Your task to perform on an android device: Go to Reddit.com Image 0: 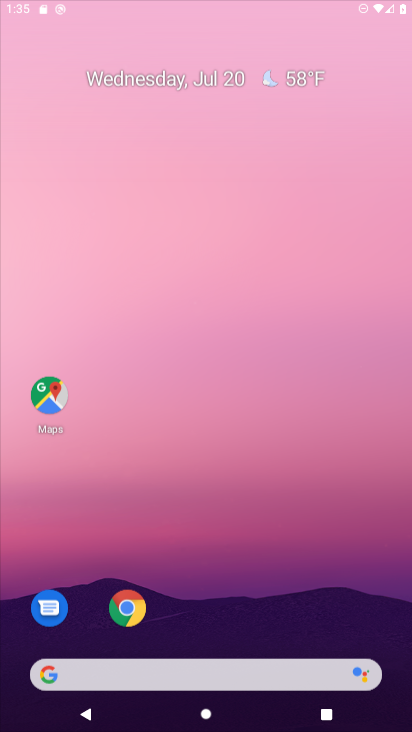
Step 0: click (210, 396)
Your task to perform on an android device: Go to Reddit.com Image 1: 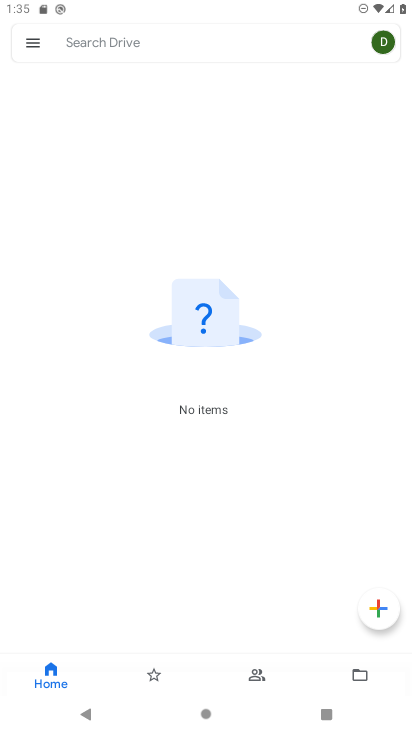
Step 1: press home button
Your task to perform on an android device: Go to Reddit.com Image 2: 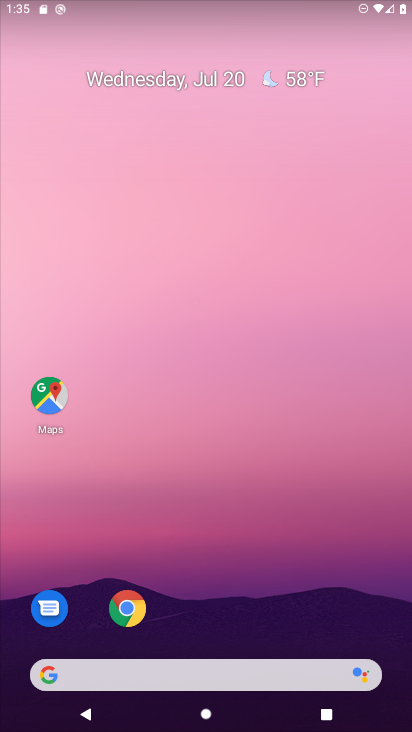
Step 2: drag from (229, 672) to (227, 178)
Your task to perform on an android device: Go to Reddit.com Image 3: 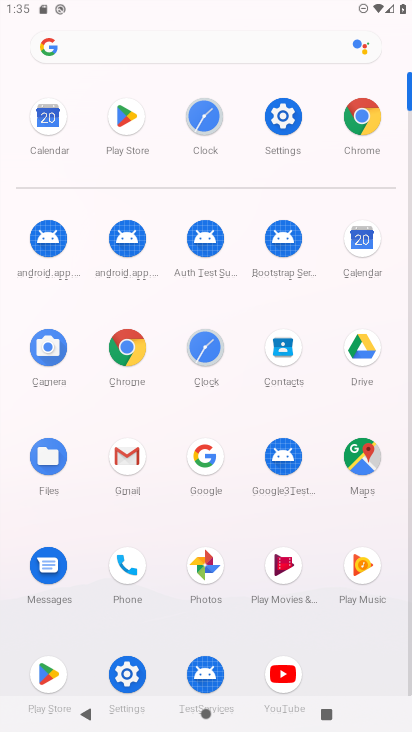
Step 3: click (133, 349)
Your task to perform on an android device: Go to Reddit.com Image 4: 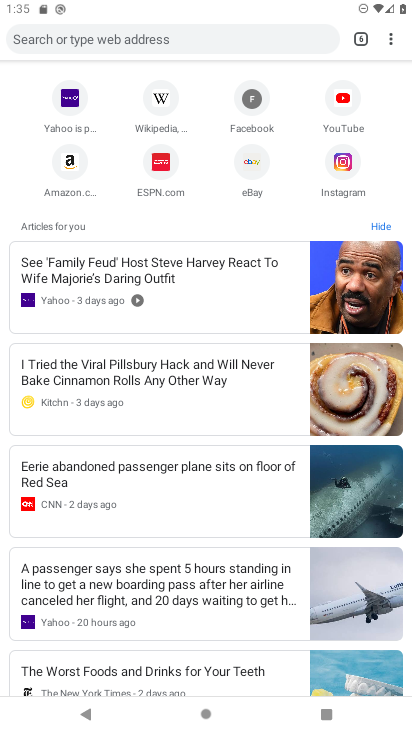
Step 4: click (214, 42)
Your task to perform on an android device: Go to Reddit.com Image 5: 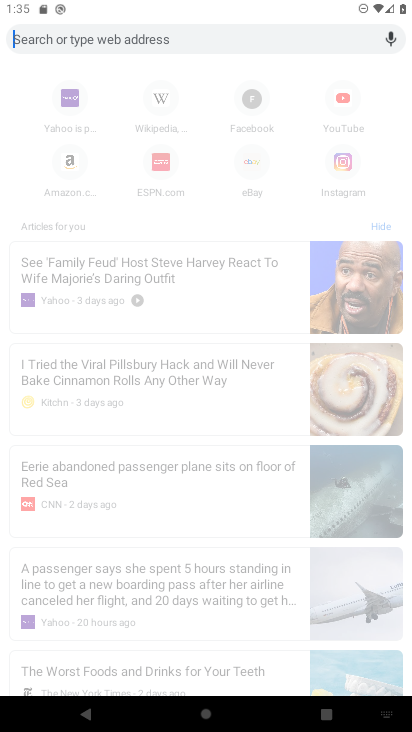
Step 5: type "Reddit.com"
Your task to perform on an android device: Go to Reddit.com Image 6: 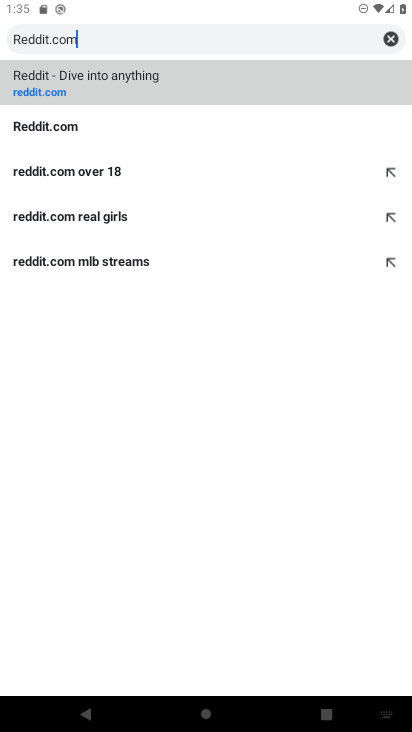
Step 6: click (49, 80)
Your task to perform on an android device: Go to Reddit.com Image 7: 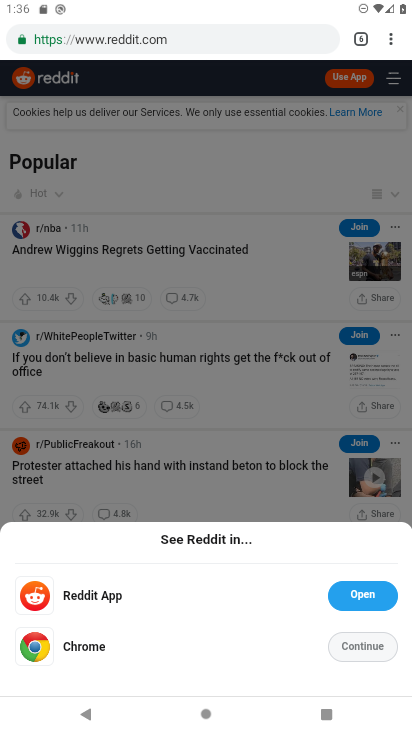
Step 7: task complete